Your task to perform on an android device: open the mobile data screen to see how much data has been used Image 0: 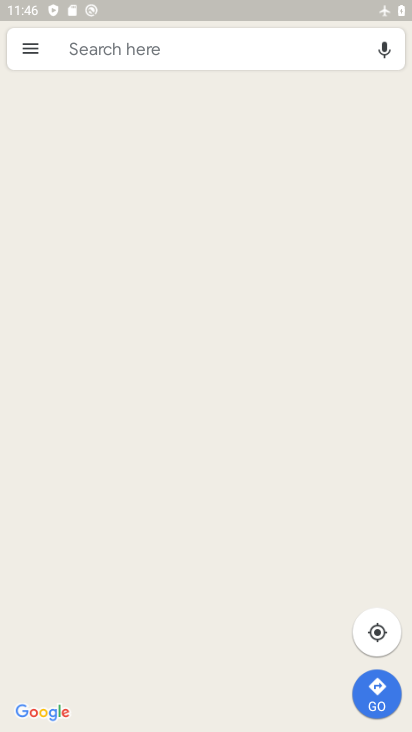
Step 0: press home button
Your task to perform on an android device: open the mobile data screen to see how much data has been used Image 1: 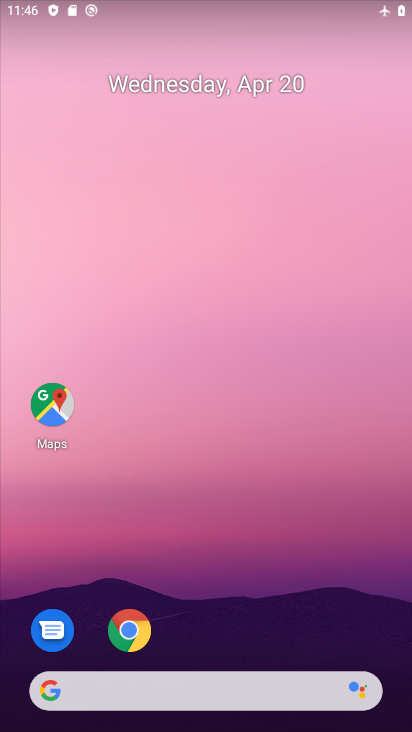
Step 1: drag from (258, 488) to (309, 24)
Your task to perform on an android device: open the mobile data screen to see how much data has been used Image 2: 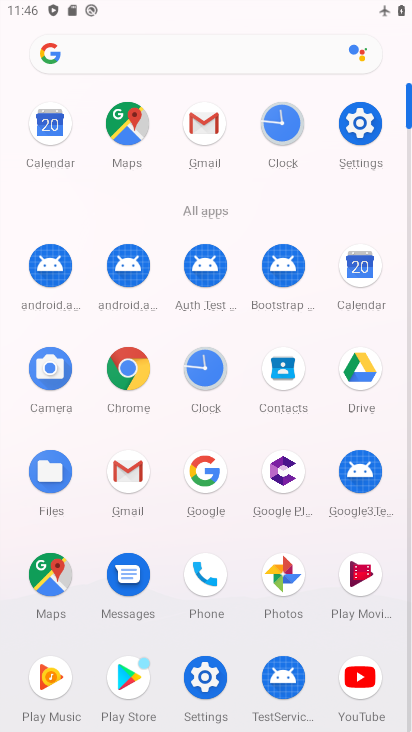
Step 2: click (370, 121)
Your task to perform on an android device: open the mobile data screen to see how much data has been used Image 3: 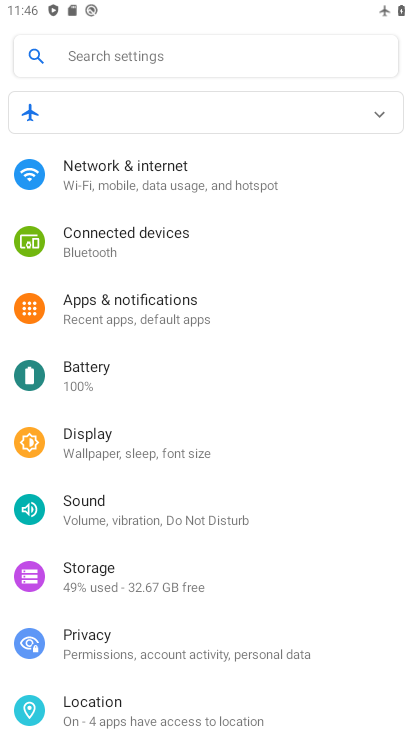
Step 3: click (60, 172)
Your task to perform on an android device: open the mobile data screen to see how much data has been used Image 4: 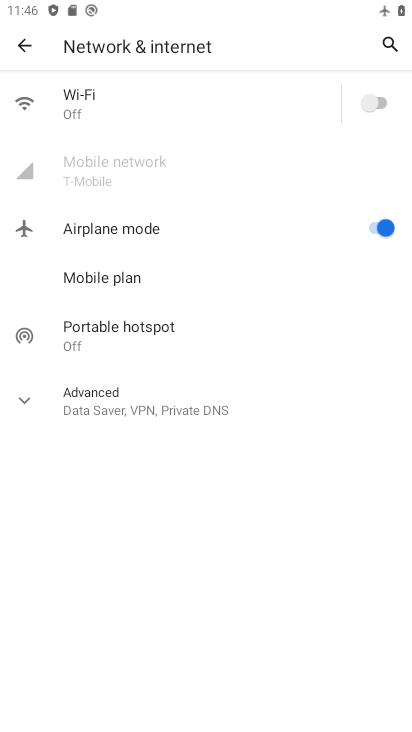
Step 4: click (118, 166)
Your task to perform on an android device: open the mobile data screen to see how much data has been used Image 5: 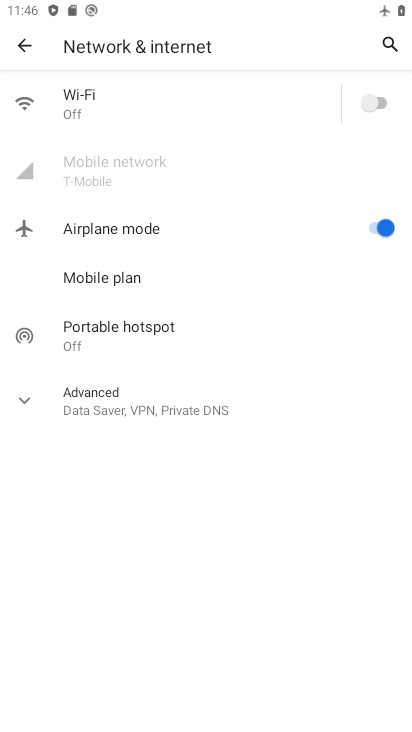
Step 5: click (118, 166)
Your task to perform on an android device: open the mobile data screen to see how much data has been used Image 6: 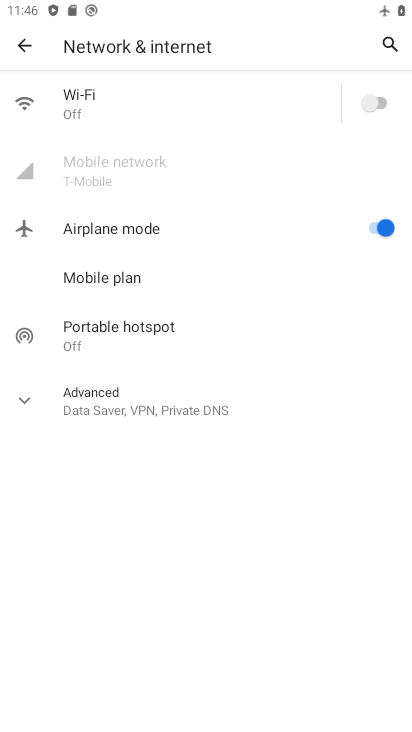
Step 6: click (118, 166)
Your task to perform on an android device: open the mobile data screen to see how much data has been used Image 7: 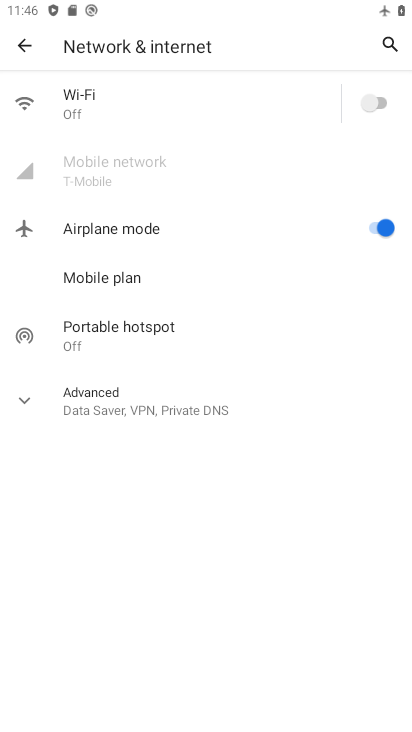
Step 7: click (118, 166)
Your task to perform on an android device: open the mobile data screen to see how much data has been used Image 8: 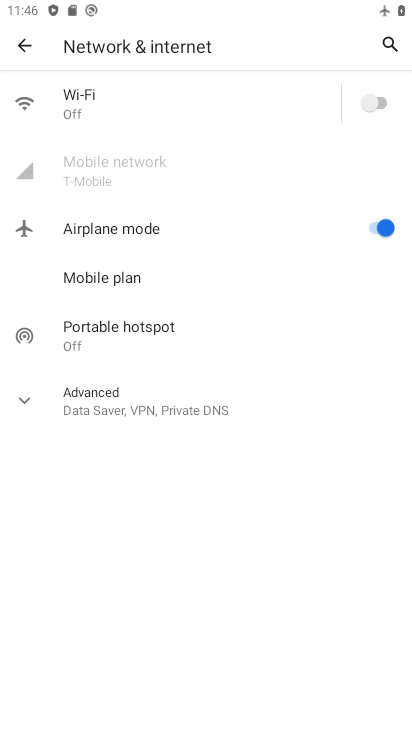
Step 8: click (118, 166)
Your task to perform on an android device: open the mobile data screen to see how much data has been used Image 9: 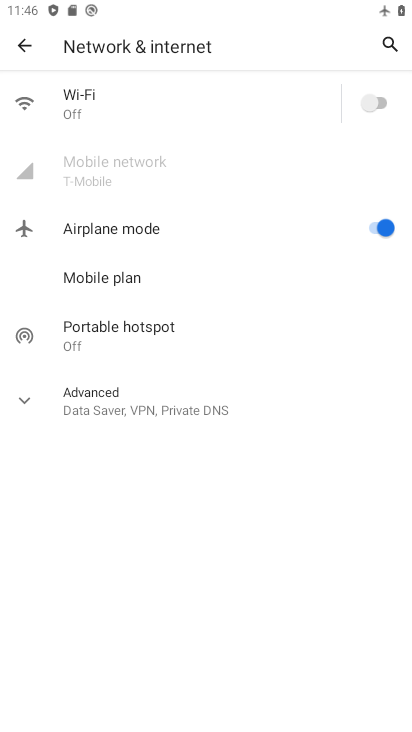
Step 9: click (118, 166)
Your task to perform on an android device: open the mobile data screen to see how much data has been used Image 10: 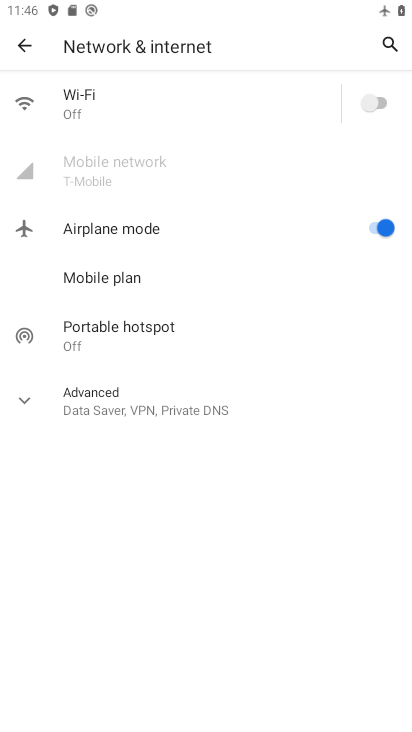
Step 10: task complete